Your task to perform on an android device: empty trash in google photos Image 0: 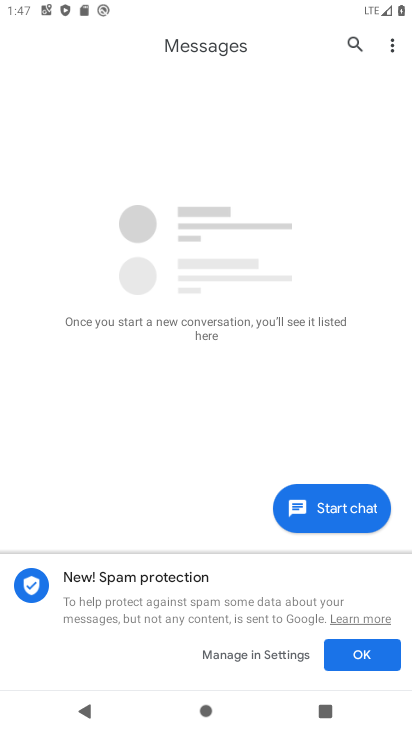
Step 0: press home button
Your task to perform on an android device: empty trash in google photos Image 1: 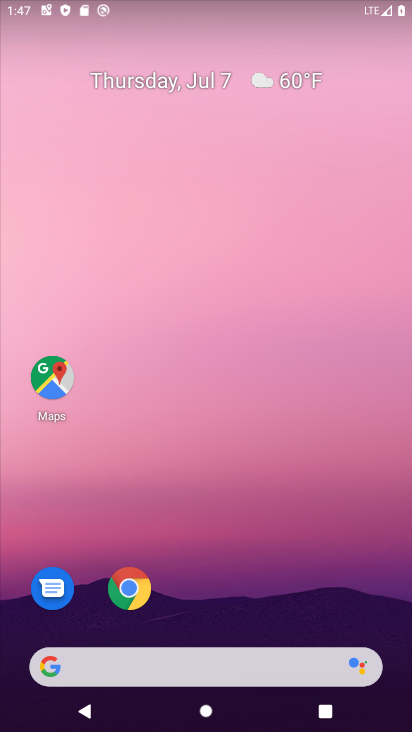
Step 1: drag from (291, 612) to (283, 106)
Your task to perform on an android device: empty trash in google photos Image 2: 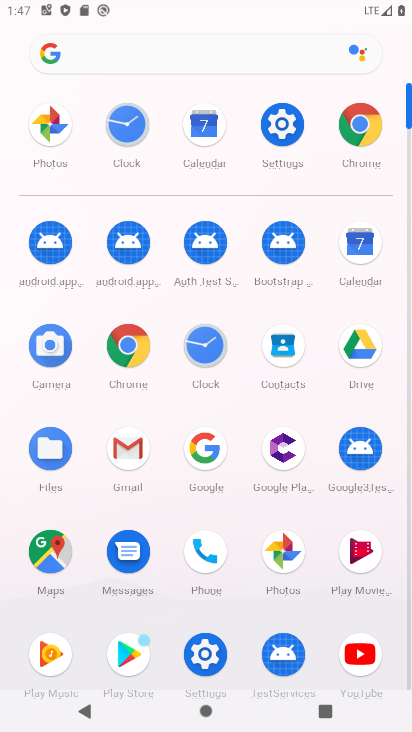
Step 2: click (274, 538)
Your task to perform on an android device: empty trash in google photos Image 3: 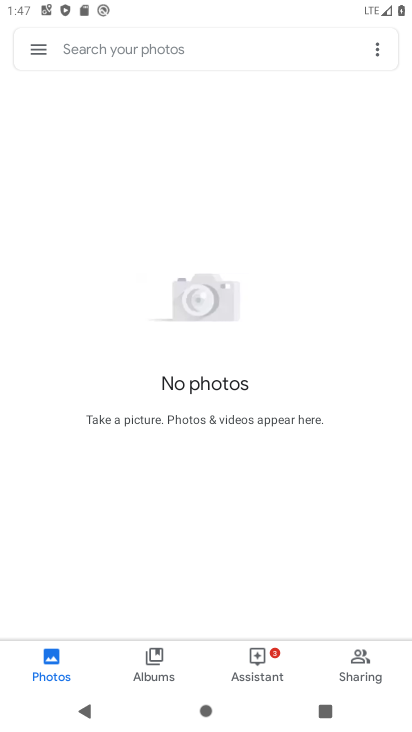
Step 3: click (36, 39)
Your task to perform on an android device: empty trash in google photos Image 4: 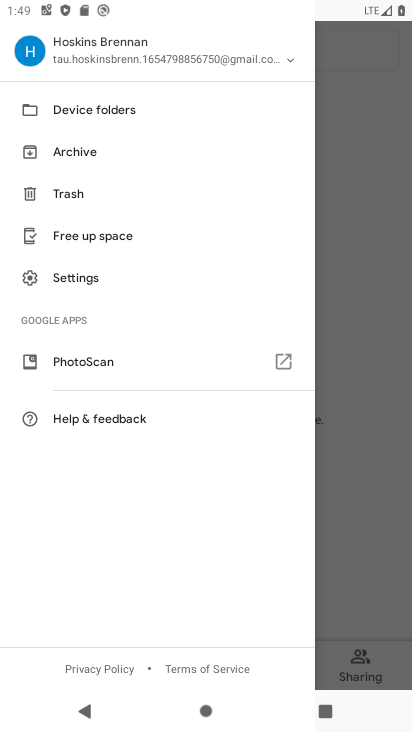
Step 4: click (80, 197)
Your task to perform on an android device: empty trash in google photos Image 5: 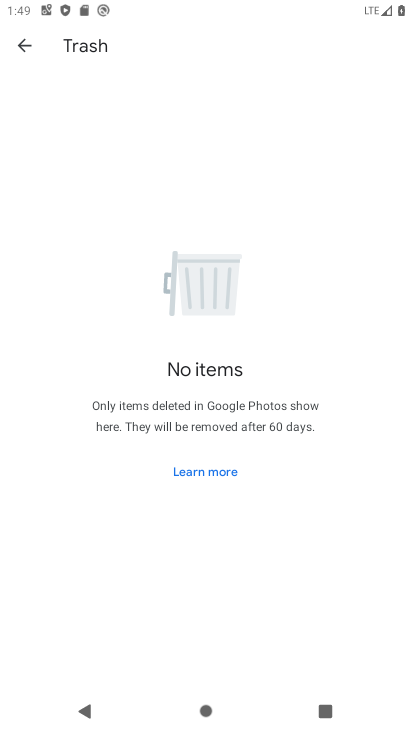
Step 5: task complete